Your task to perform on an android device: Search for hotels in Boston Image 0: 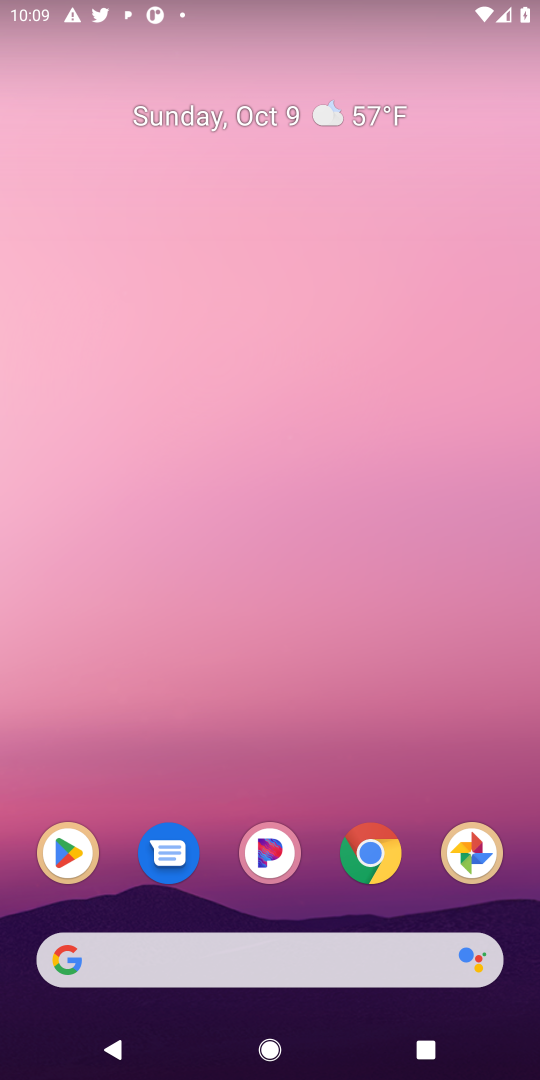
Step 0: click (352, 853)
Your task to perform on an android device: Search for hotels in Boston Image 1: 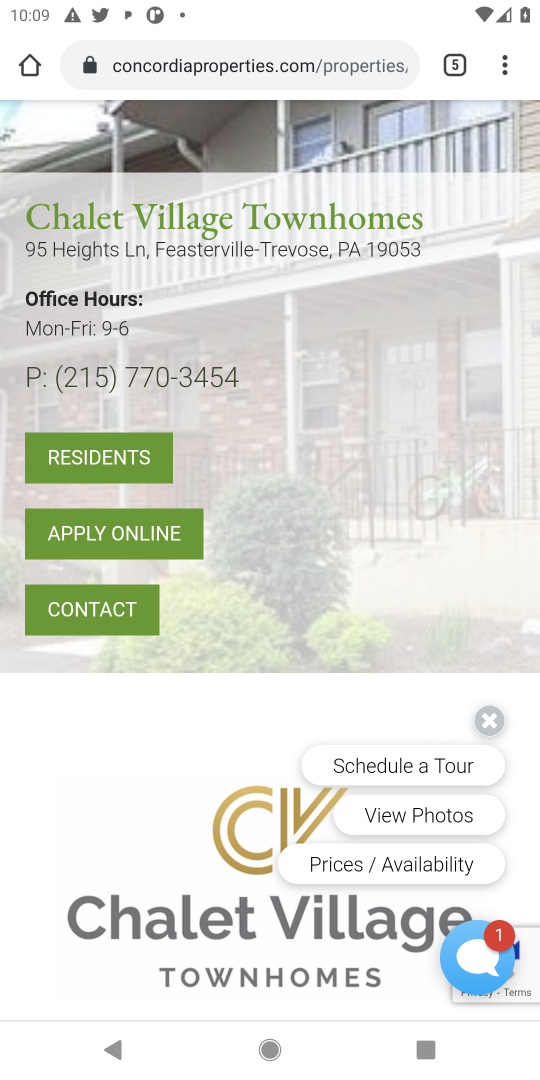
Step 1: click (320, 81)
Your task to perform on an android device: Search for hotels in Boston Image 2: 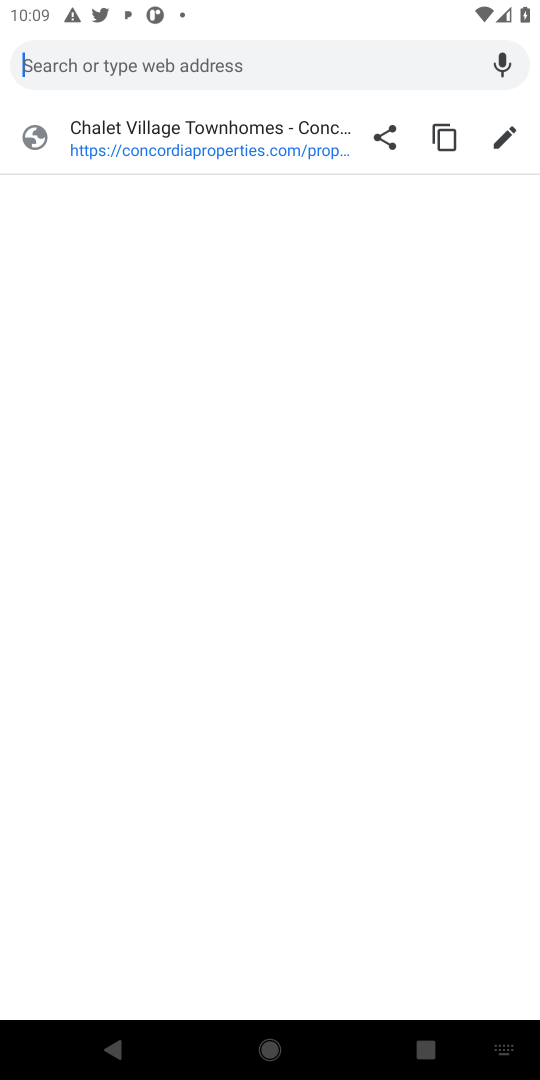
Step 2: type "hotels in boston"
Your task to perform on an android device: Search for hotels in Boston Image 3: 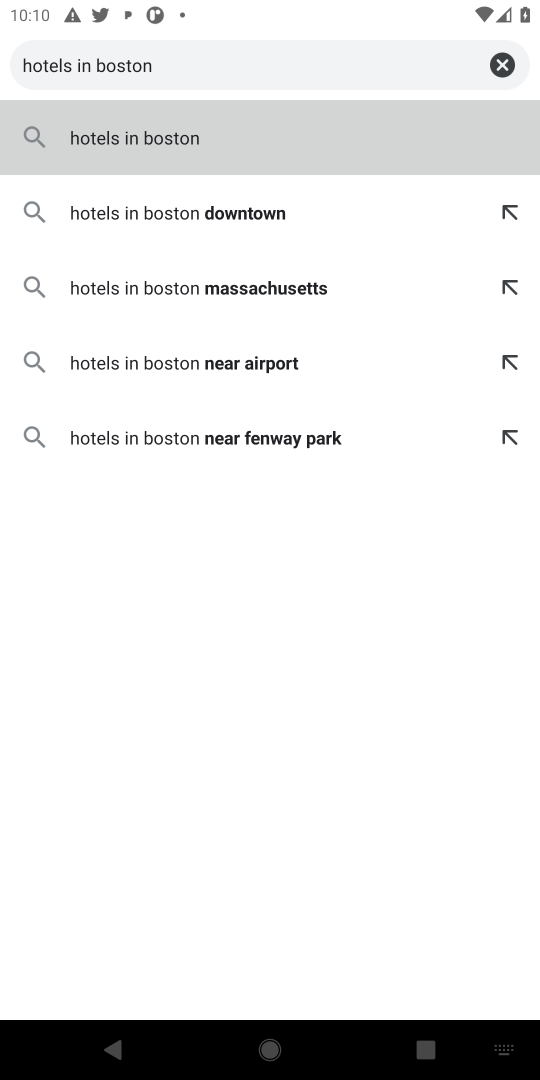
Step 3: click (414, 75)
Your task to perform on an android device: Search for hotels in Boston Image 4: 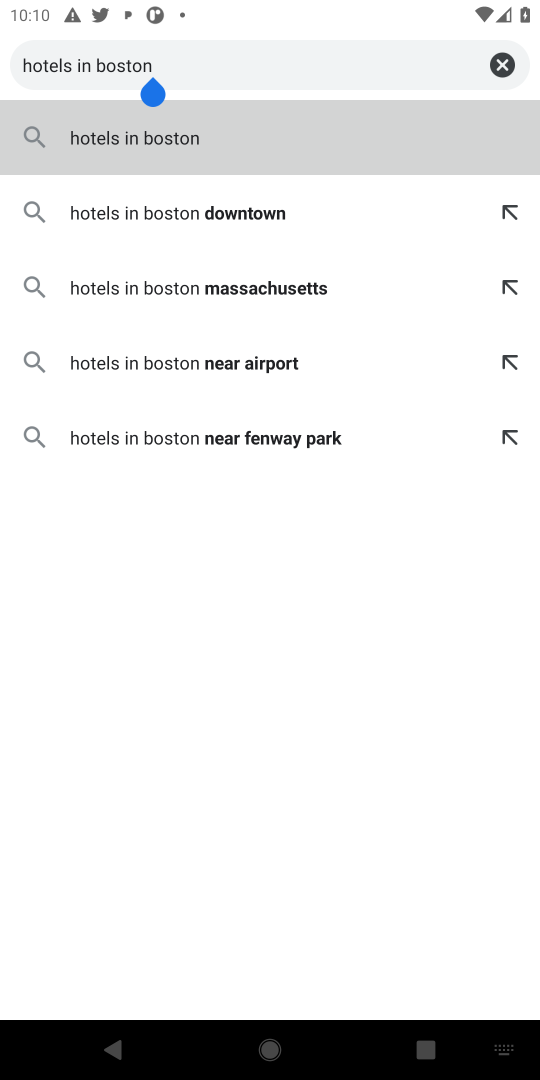
Step 4: press enter
Your task to perform on an android device: Search for hotels in Boston Image 5: 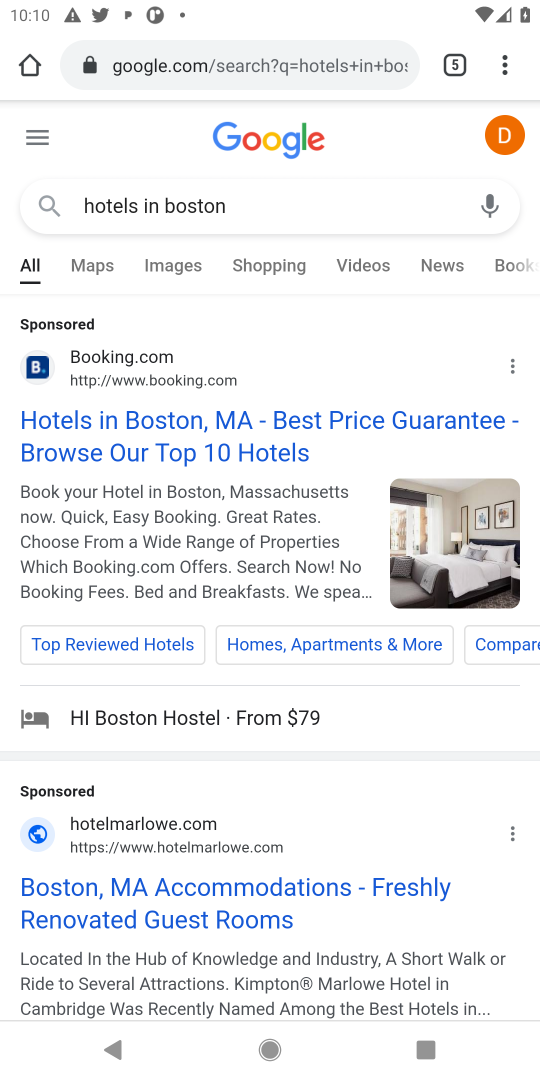
Step 5: click (173, 436)
Your task to perform on an android device: Search for hotels in Boston Image 6: 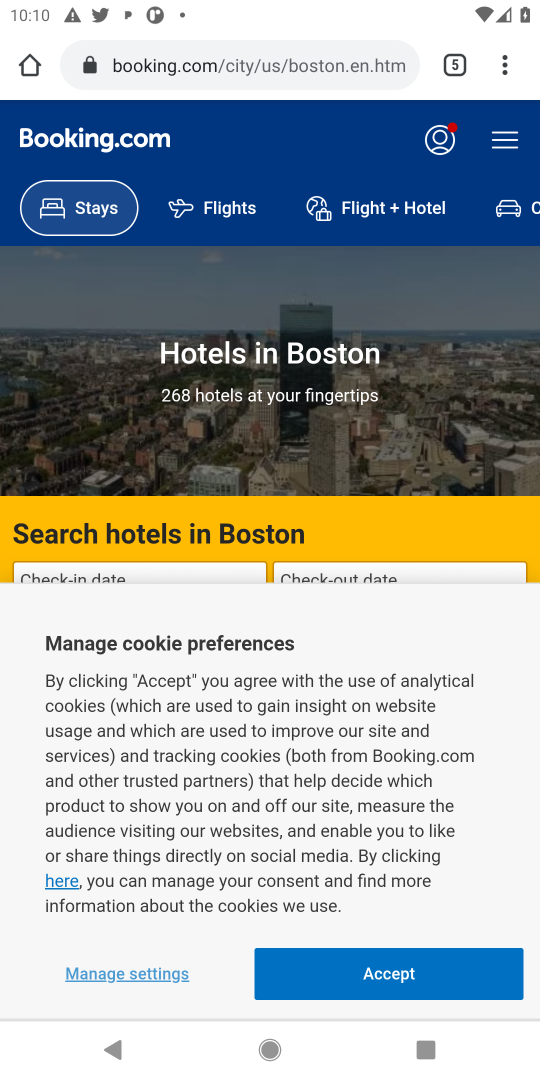
Step 6: drag from (190, 467) to (224, 304)
Your task to perform on an android device: Search for hotels in Boston Image 7: 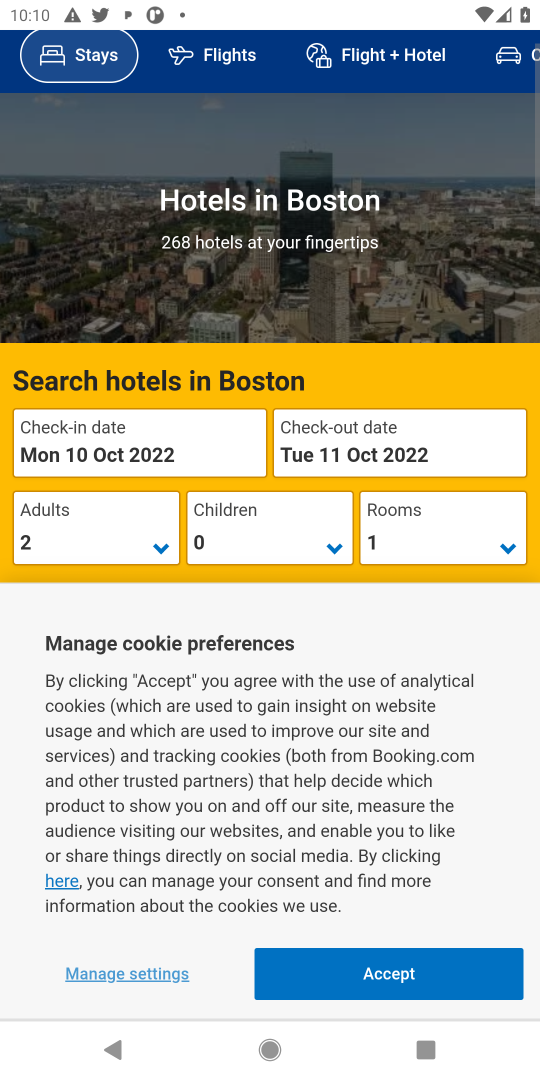
Step 7: click (311, 982)
Your task to perform on an android device: Search for hotels in Boston Image 8: 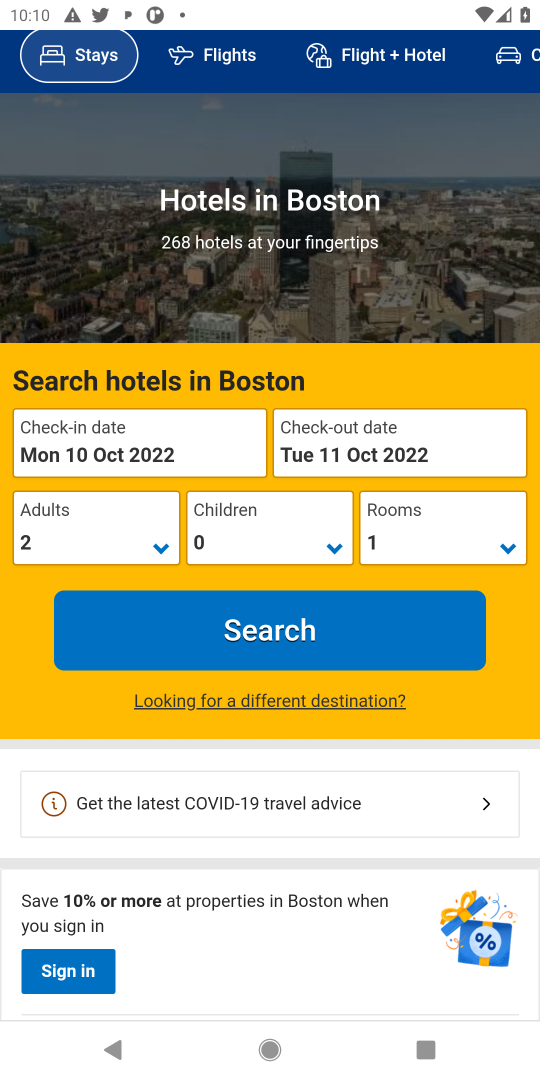
Step 8: drag from (319, 971) to (394, 508)
Your task to perform on an android device: Search for hotels in Boston Image 9: 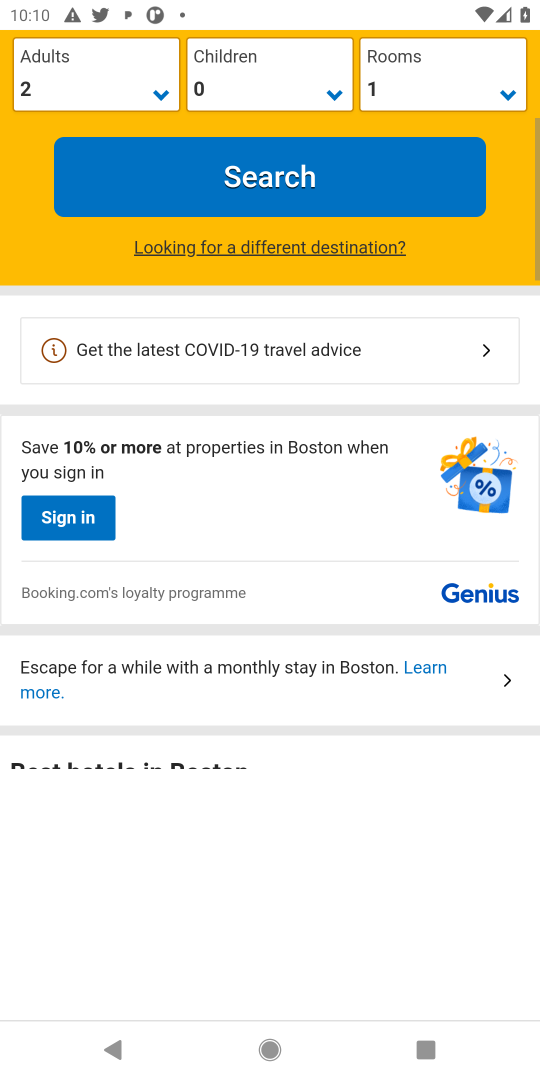
Step 9: drag from (341, 749) to (317, 309)
Your task to perform on an android device: Search for hotels in Boston Image 10: 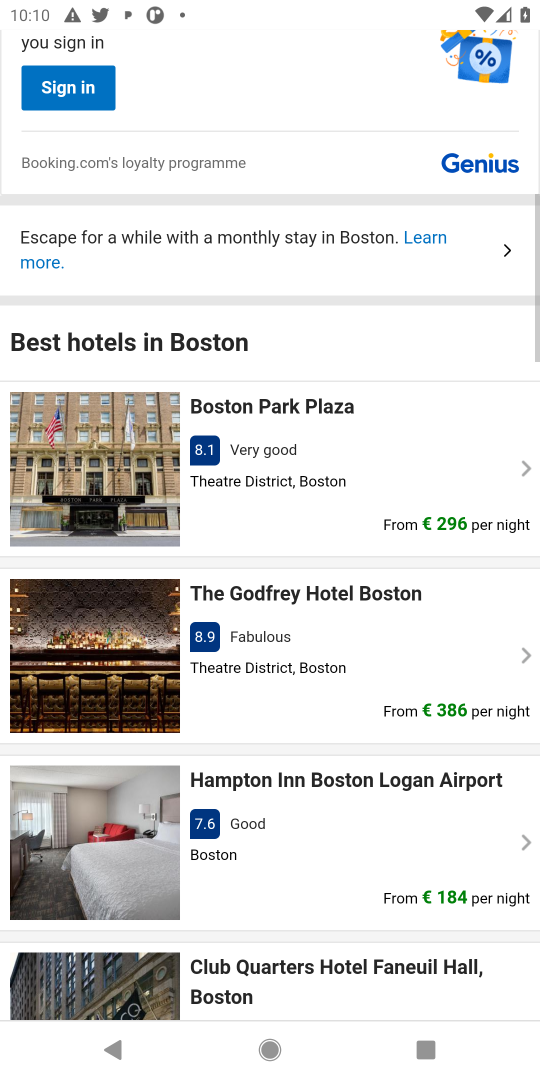
Step 10: drag from (409, 617) to (406, 320)
Your task to perform on an android device: Search for hotels in Boston Image 11: 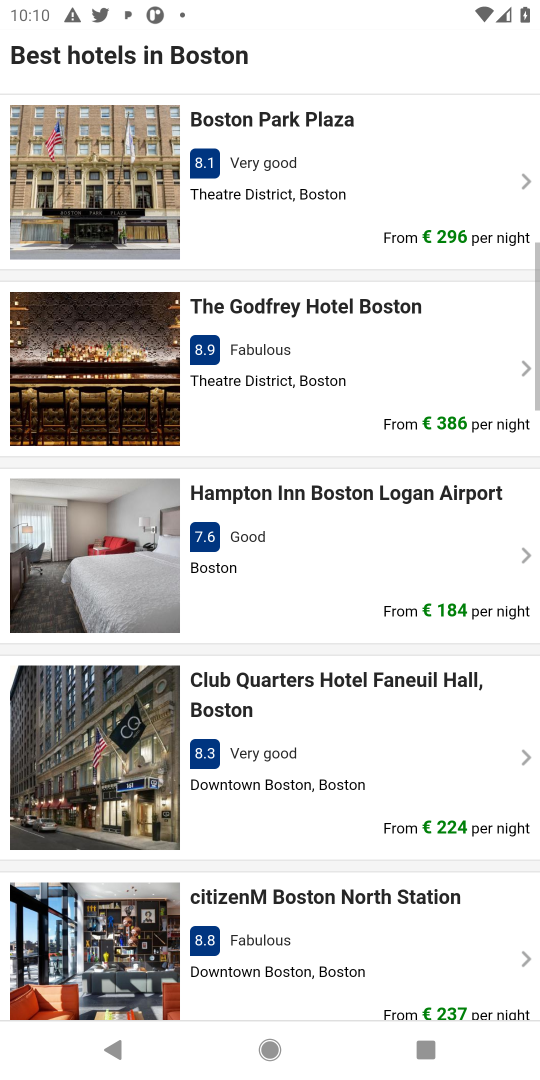
Step 11: drag from (381, 670) to (395, 378)
Your task to perform on an android device: Search for hotels in Boston Image 12: 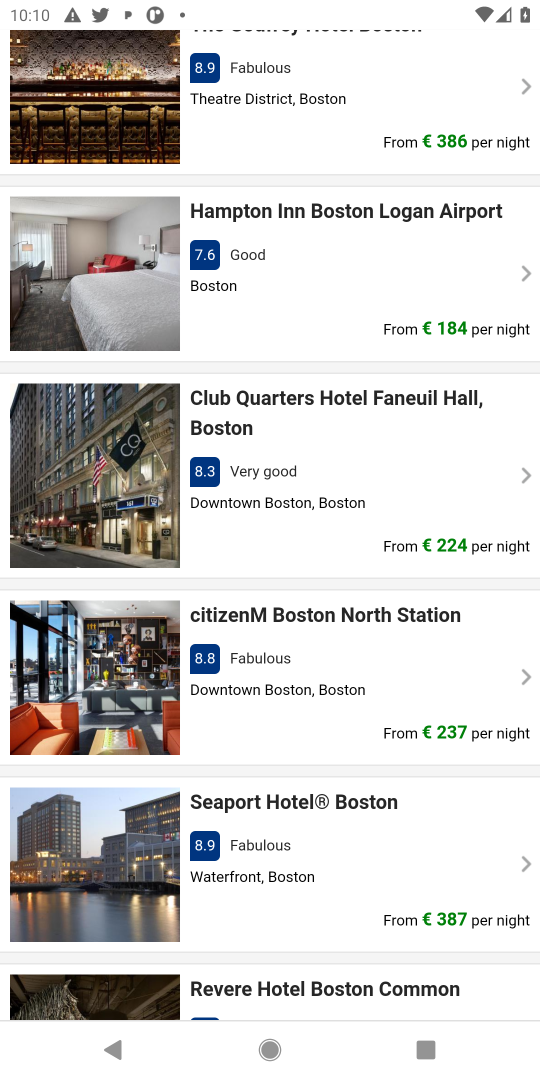
Step 12: drag from (366, 750) to (454, 254)
Your task to perform on an android device: Search for hotels in Boston Image 13: 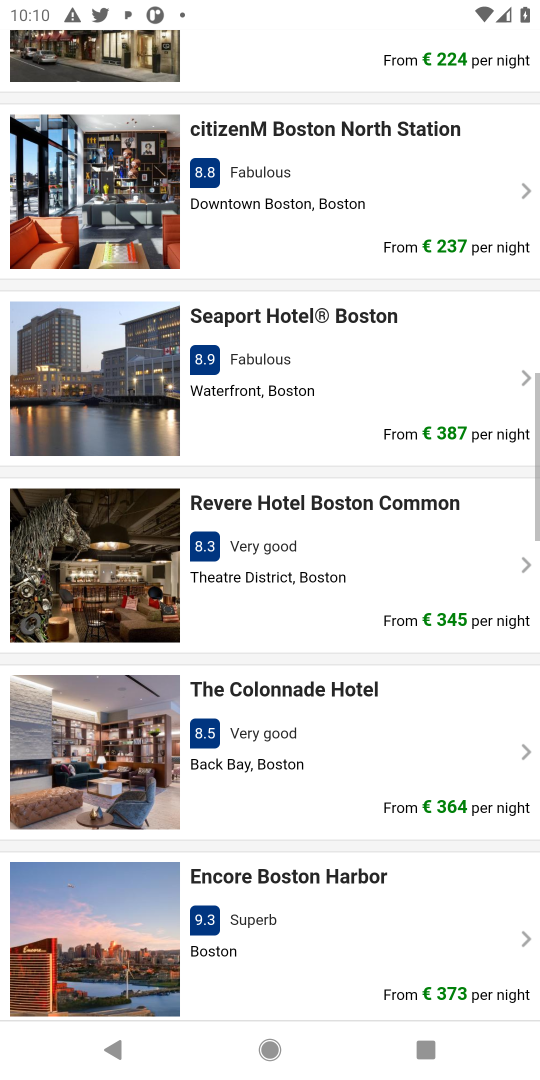
Step 13: drag from (438, 806) to (426, 234)
Your task to perform on an android device: Search for hotels in Boston Image 14: 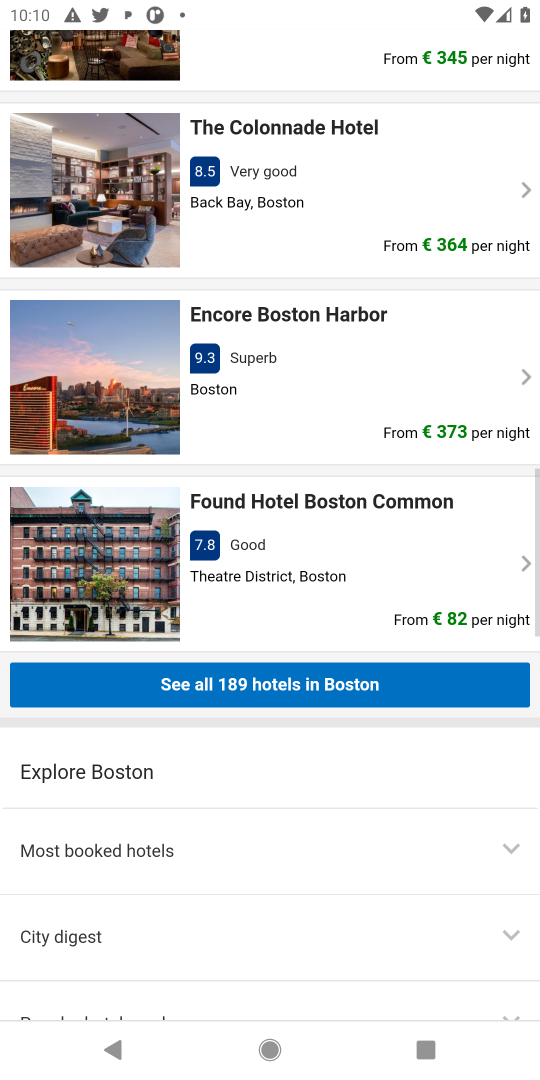
Step 14: drag from (471, 516) to (463, 365)
Your task to perform on an android device: Search for hotels in Boston Image 15: 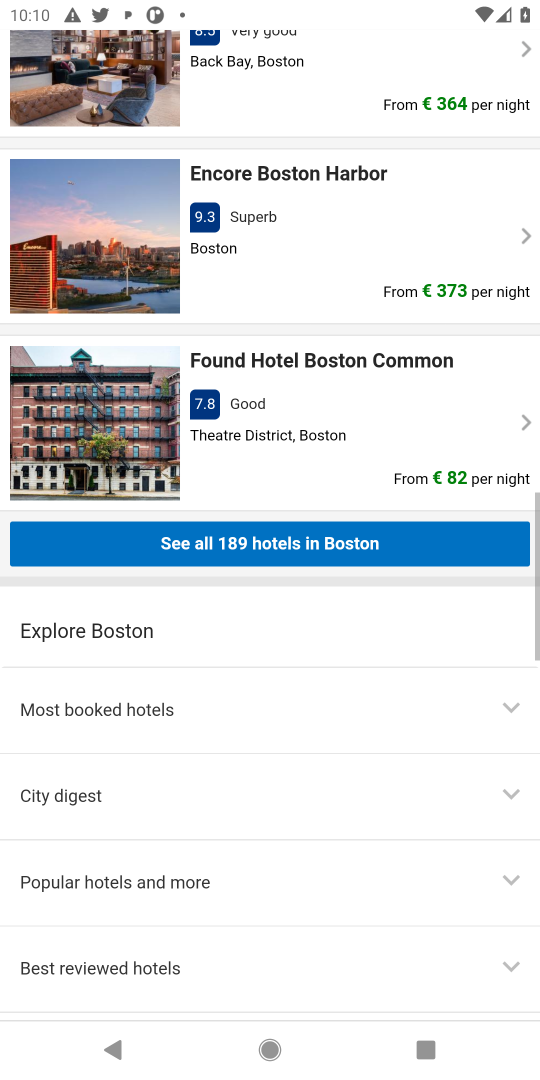
Step 15: drag from (424, 577) to (438, 326)
Your task to perform on an android device: Search for hotels in Boston Image 16: 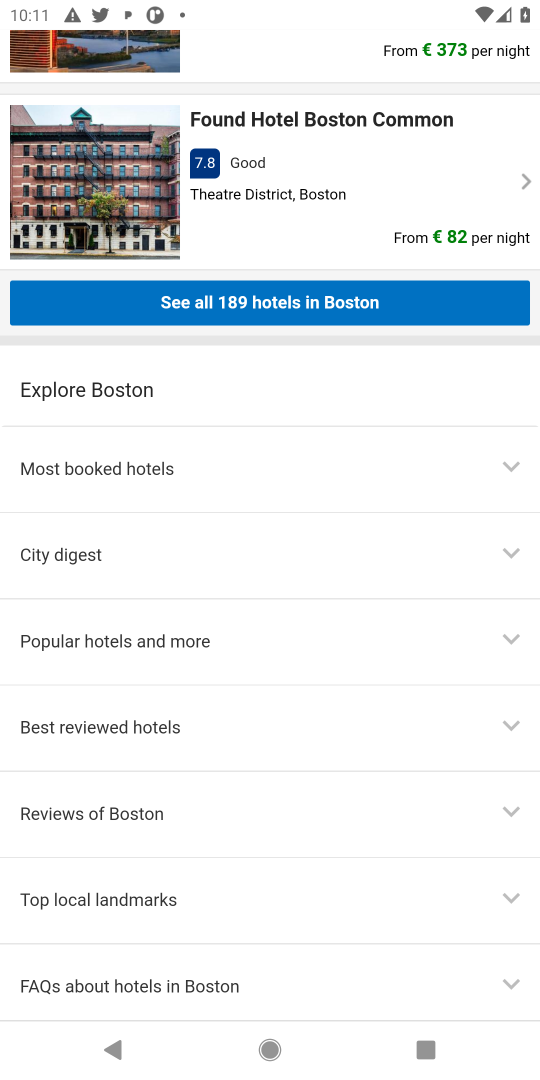
Step 16: press back button
Your task to perform on an android device: Search for hotels in Boston Image 17: 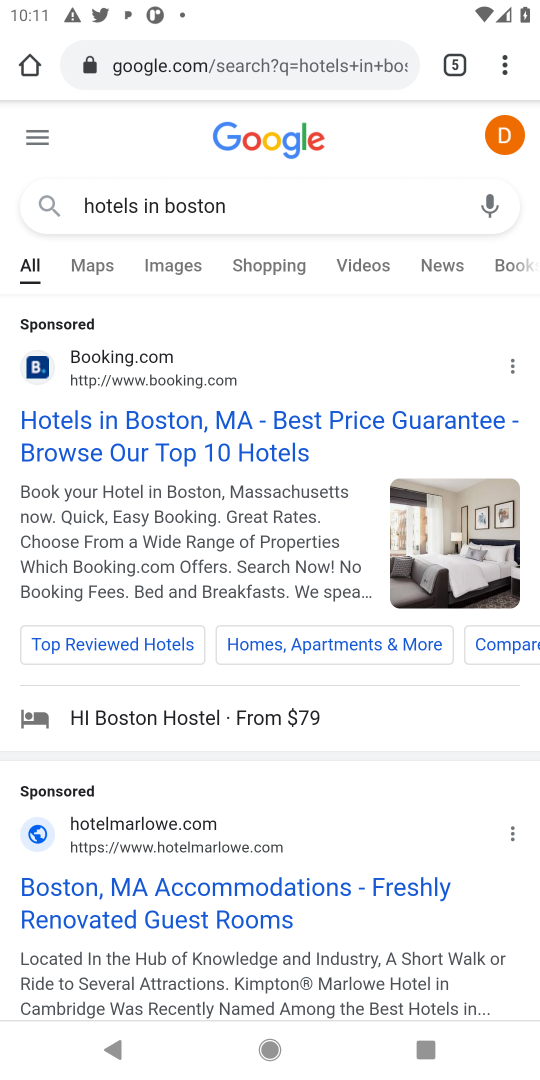
Step 17: click (238, 920)
Your task to perform on an android device: Search for hotels in Boston Image 18: 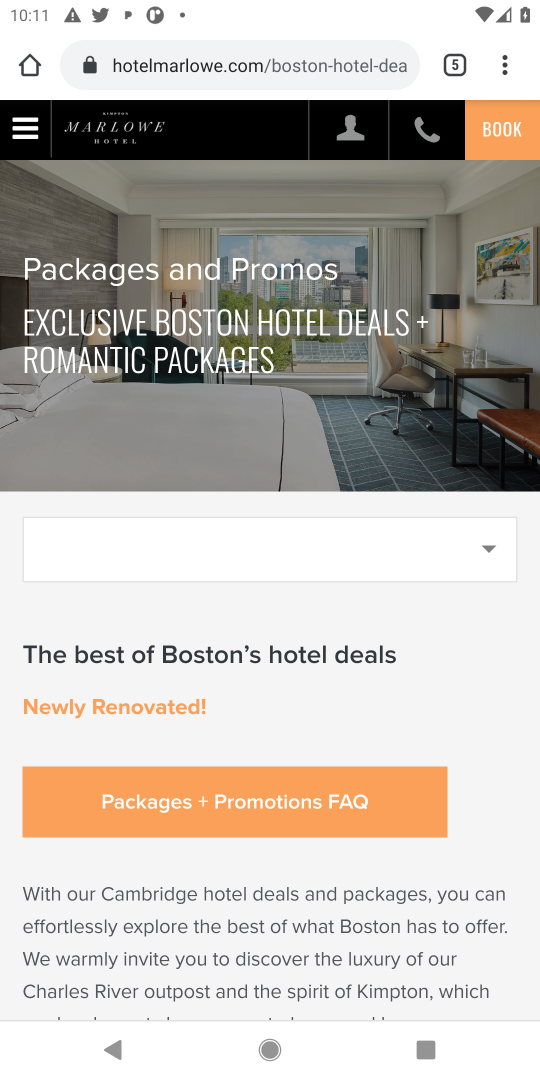
Step 18: drag from (278, 777) to (386, 315)
Your task to perform on an android device: Search for hotels in Boston Image 19: 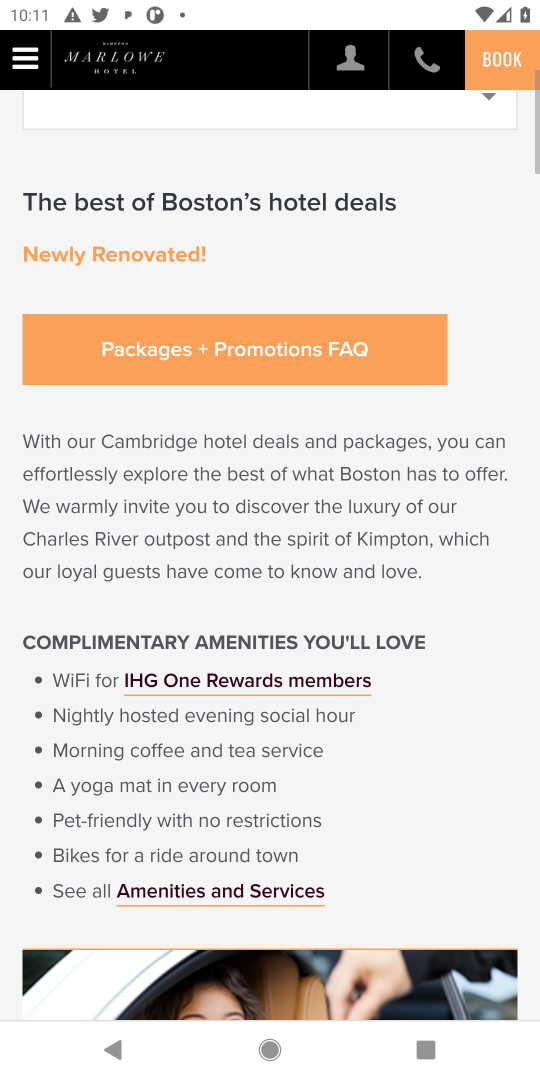
Step 19: drag from (383, 771) to (403, 285)
Your task to perform on an android device: Search for hotels in Boston Image 20: 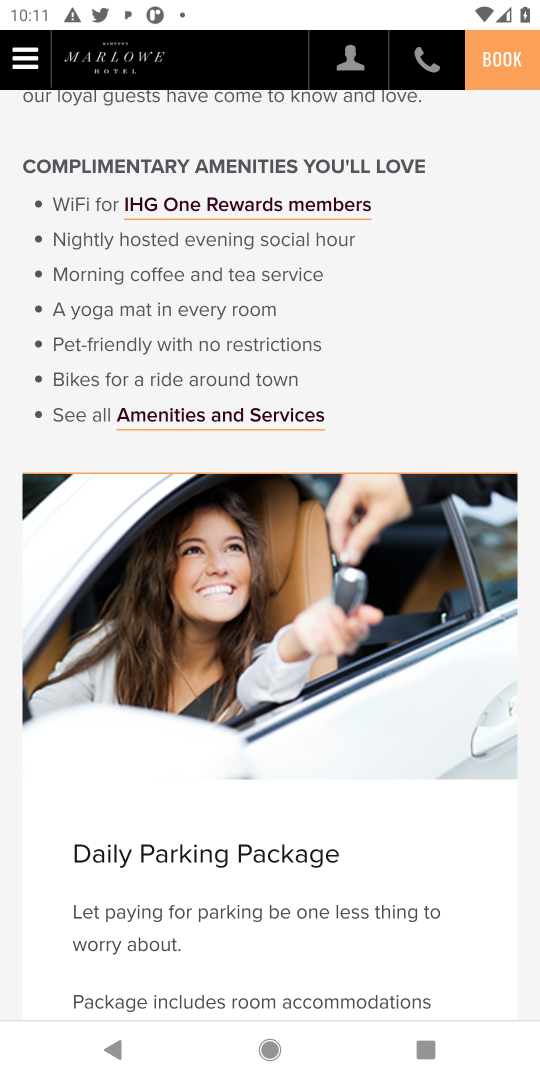
Step 20: drag from (411, 550) to (415, 265)
Your task to perform on an android device: Search for hotels in Boston Image 21: 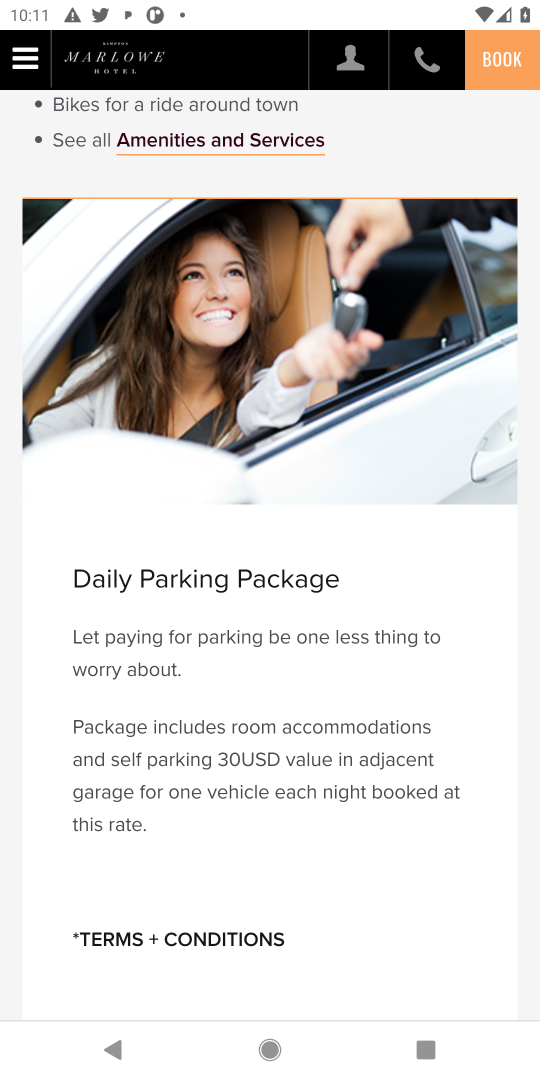
Step 21: drag from (369, 655) to (475, 201)
Your task to perform on an android device: Search for hotels in Boston Image 22: 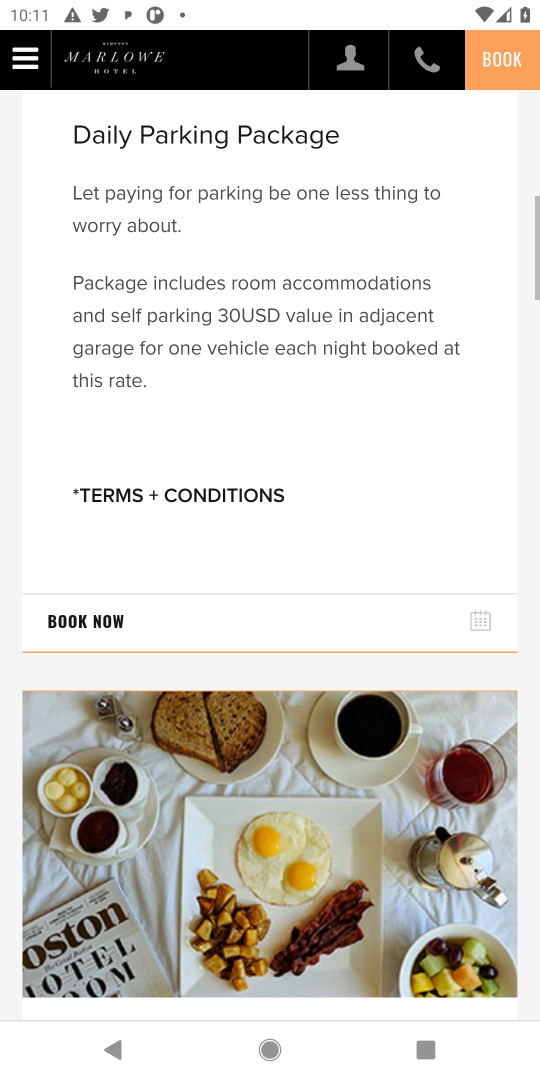
Step 22: drag from (351, 799) to (421, 314)
Your task to perform on an android device: Search for hotels in Boston Image 23: 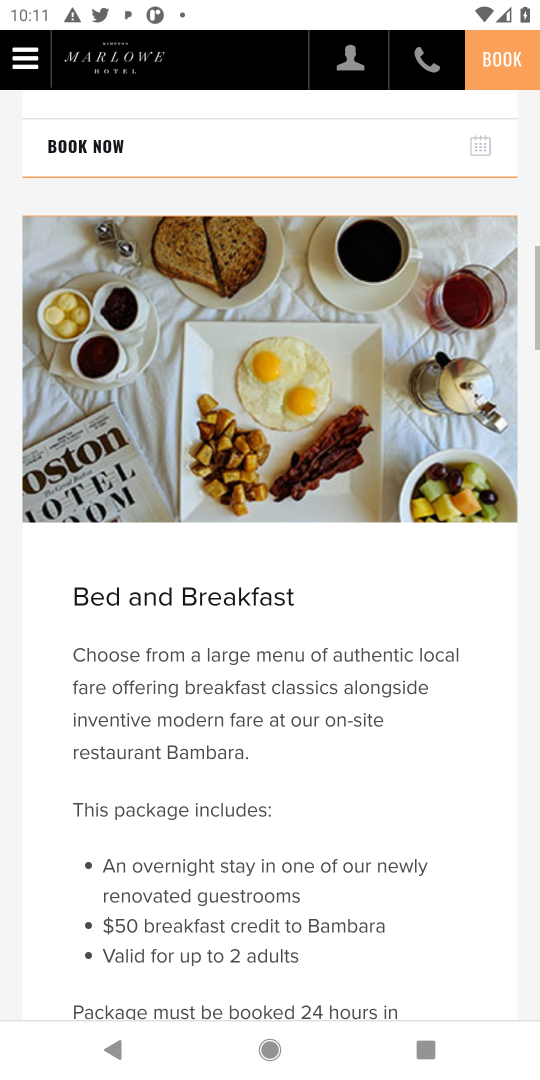
Step 23: drag from (396, 723) to (432, 426)
Your task to perform on an android device: Search for hotels in Boston Image 24: 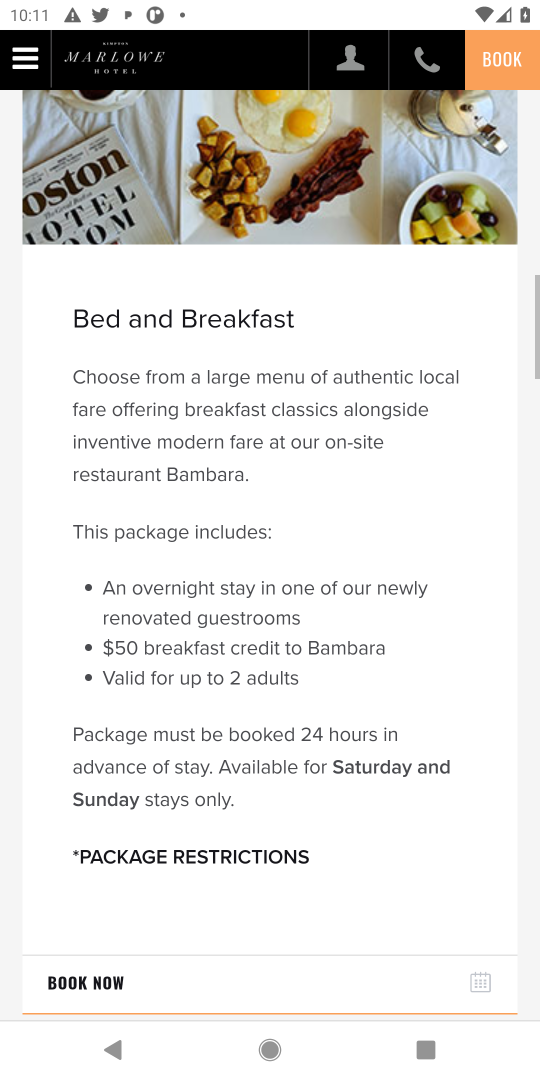
Step 24: drag from (425, 614) to (448, 502)
Your task to perform on an android device: Search for hotels in Boston Image 25: 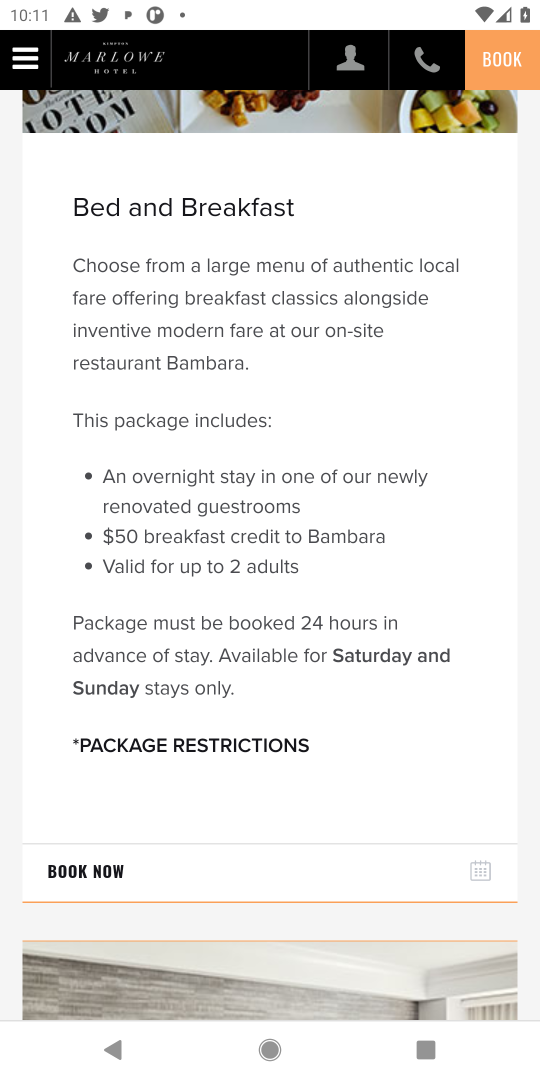
Step 25: drag from (497, 875) to (490, 652)
Your task to perform on an android device: Search for hotels in Boston Image 26: 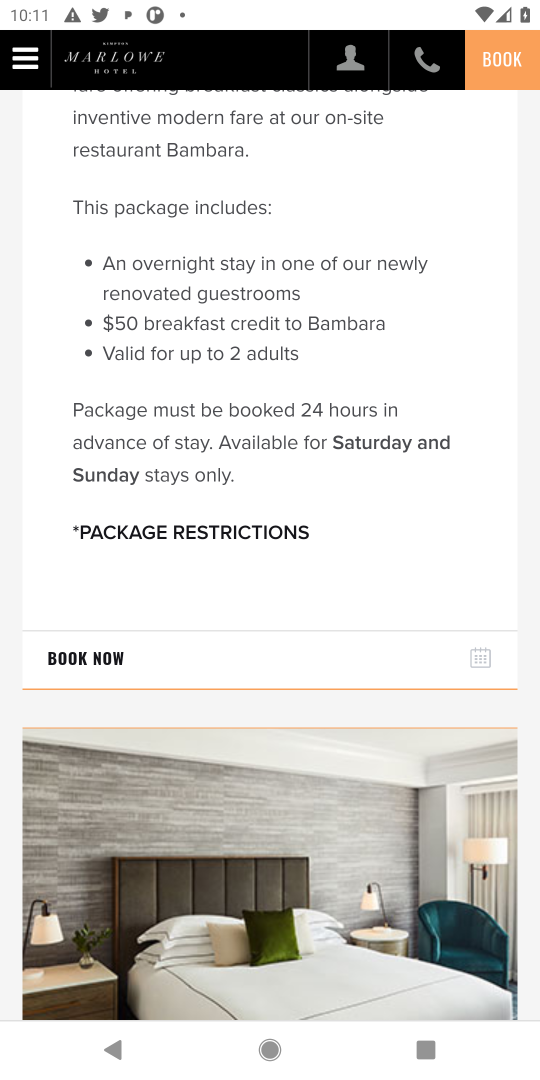
Step 26: drag from (291, 497) to (348, 161)
Your task to perform on an android device: Search for hotels in Boston Image 27: 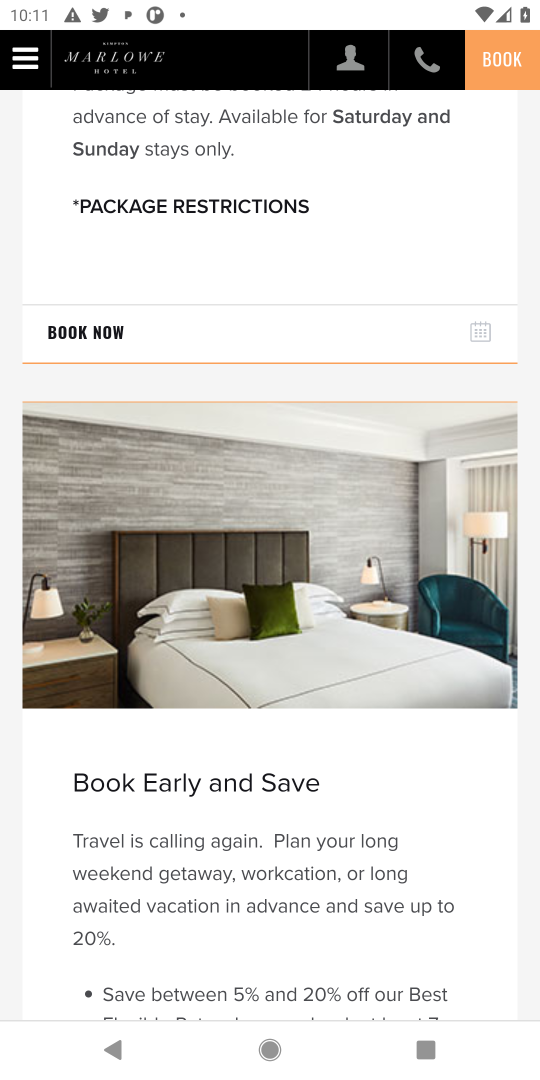
Step 27: drag from (171, 654) to (188, 397)
Your task to perform on an android device: Search for hotels in Boston Image 28: 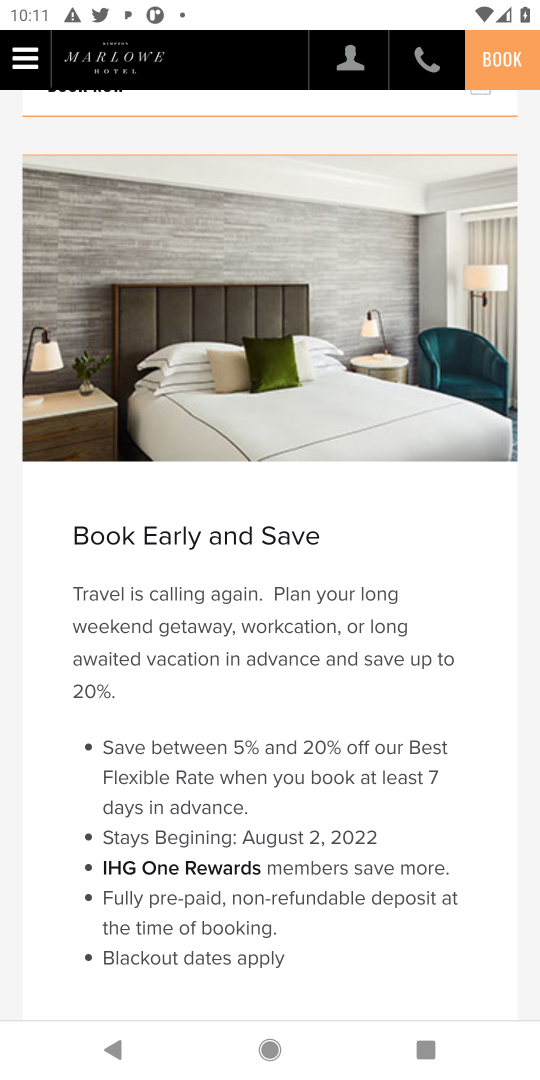
Step 28: drag from (225, 673) to (272, 479)
Your task to perform on an android device: Search for hotels in Boston Image 29: 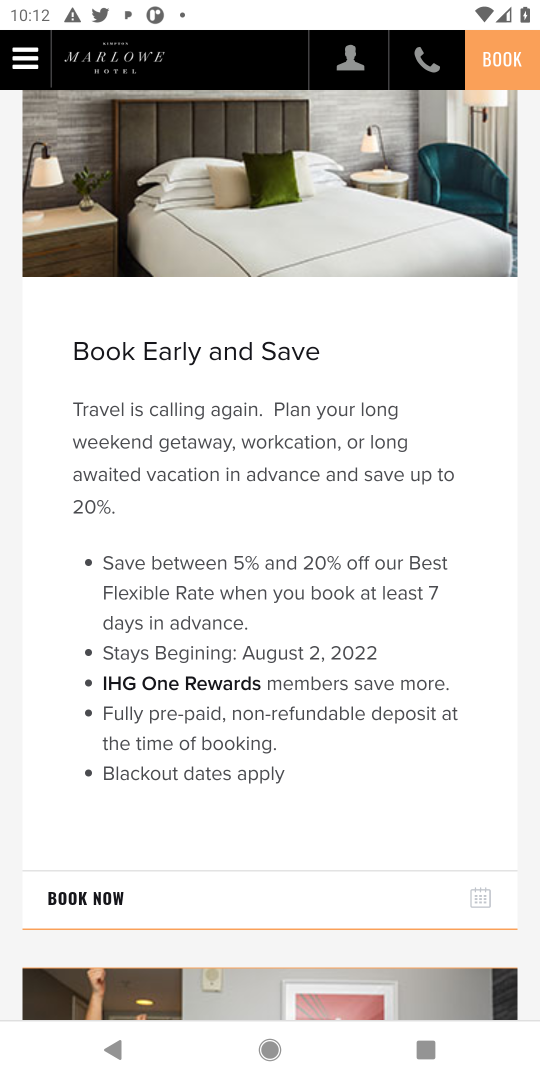
Step 29: drag from (213, 686) to (228, 389)
Your task to perform on an android device: Search for hotels in Boston Image 30: 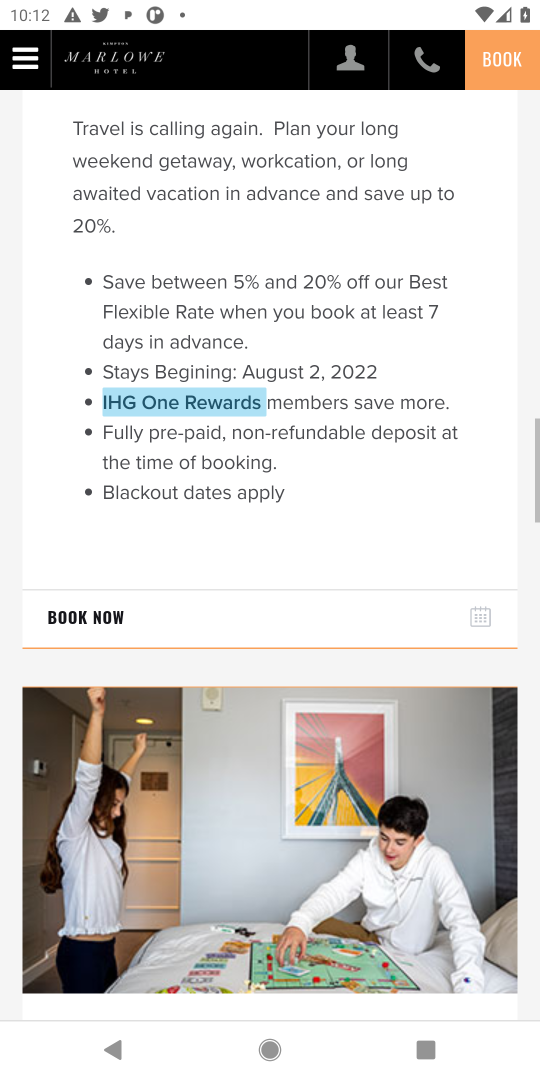
Step 30: drag from (270, 733) to (279, 283)
Your task to perform on an android device: Search for hotels in Boston Image 31: 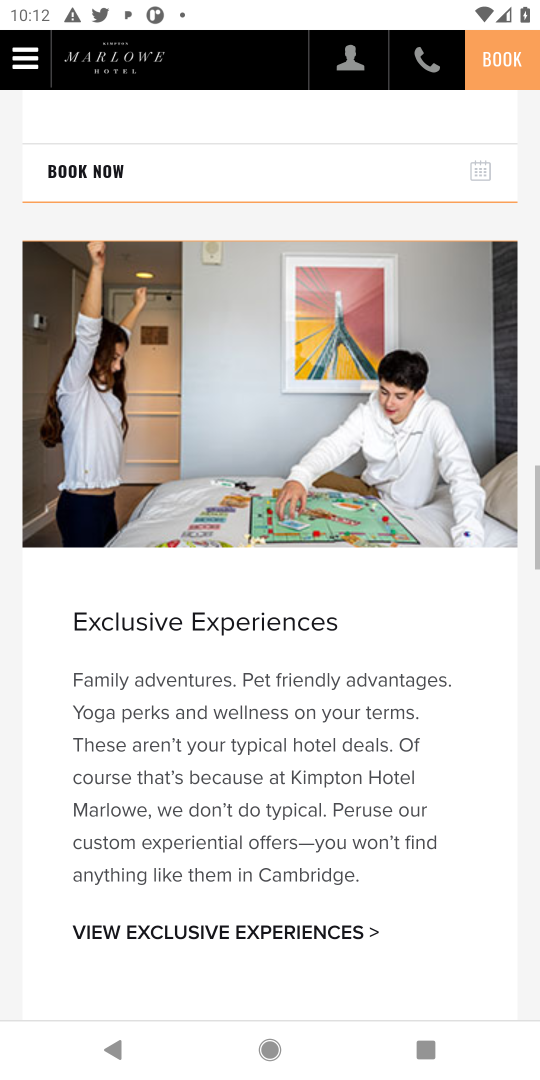
Step 31: drag from (259, 539) to (277, 233)
Your task to perform on an android device: Search for hotels in Boston Image 32: 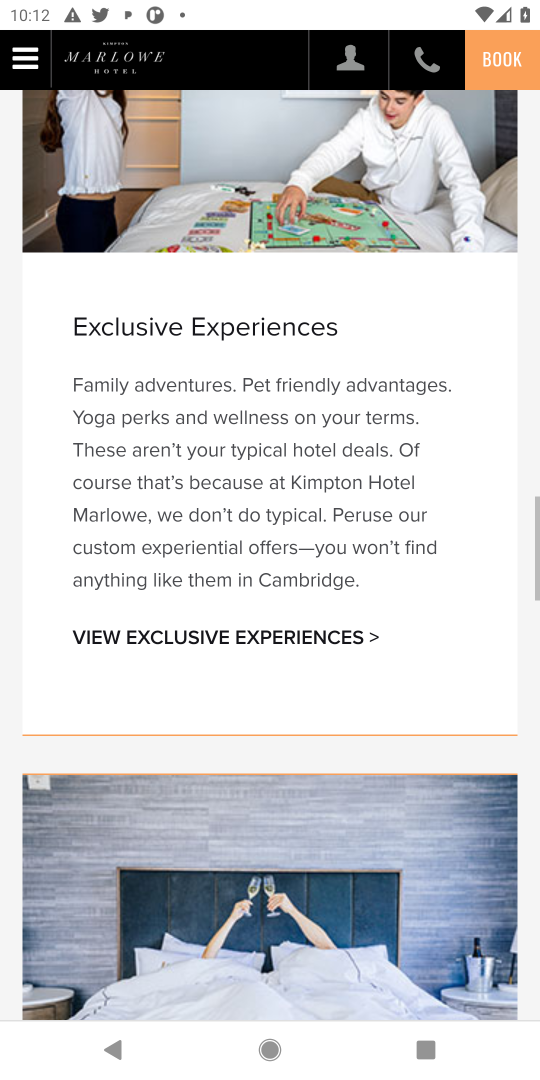
Step 32: drag from (334, 491) to (342, 231)
Your task to perform on an android device: Search for hotels in Boston Image 33: 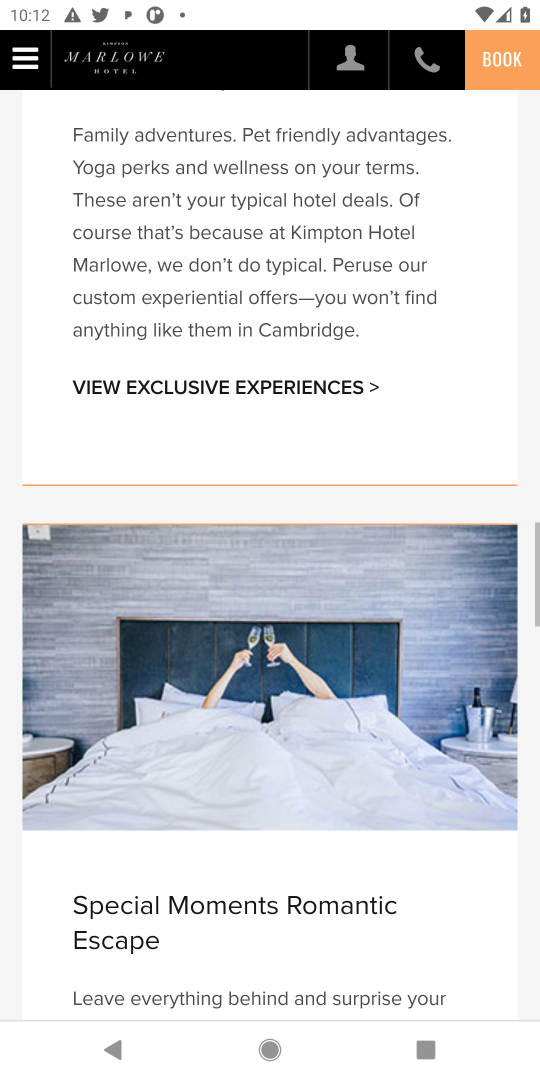
Step 33: drag from (307, 420) to (332, 212)
Your task to perform on an android device: Search for hotels in Boston Image 34: 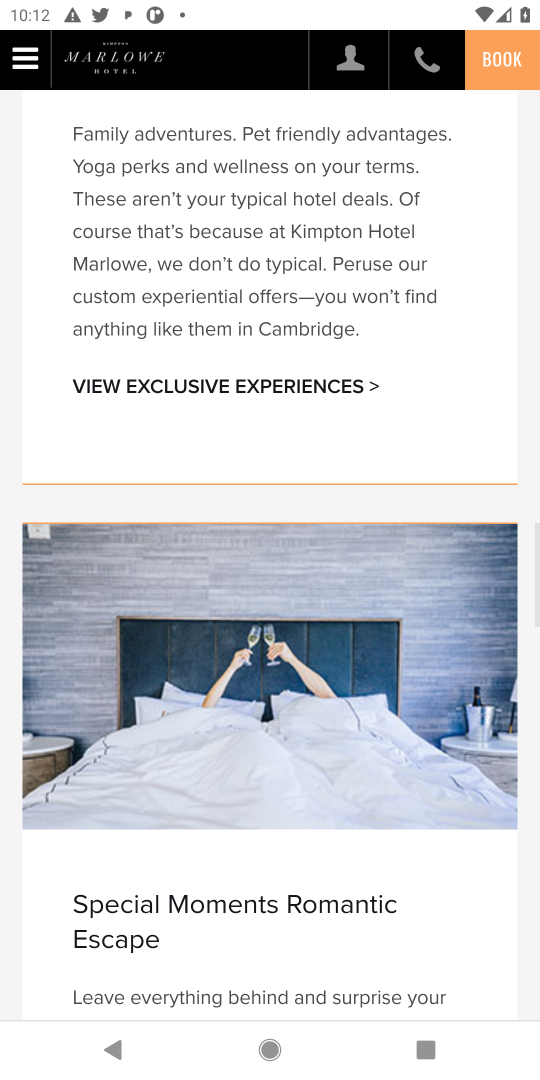
Step 34: drag from (365, 735) to (407, 356)
Your task to perform on an android device: Search for hotels in Boston Image 35: 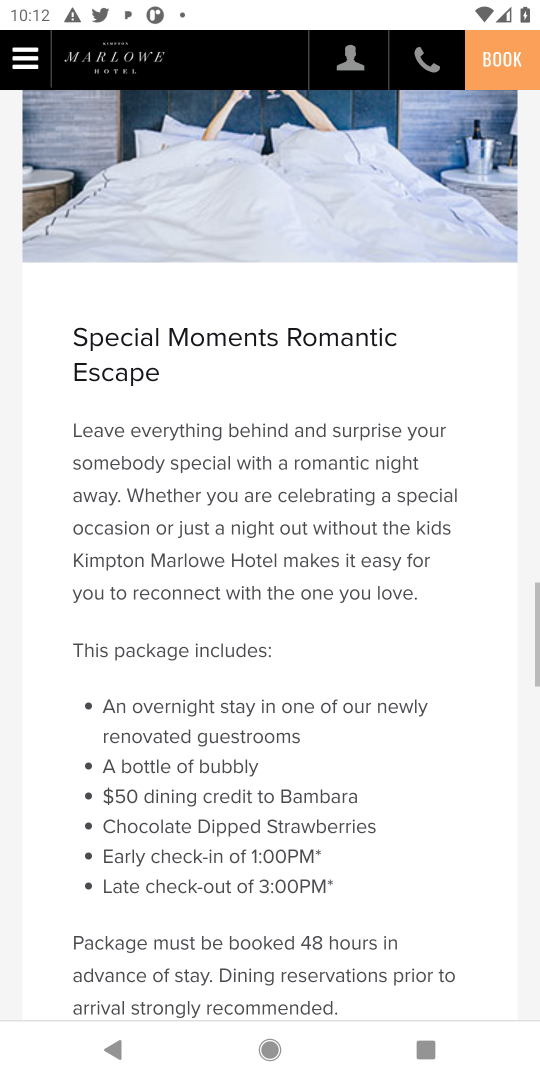
Step 35: click (338, 382)
Your task to perform on an android device: Search for hotels in Boston Image 36: 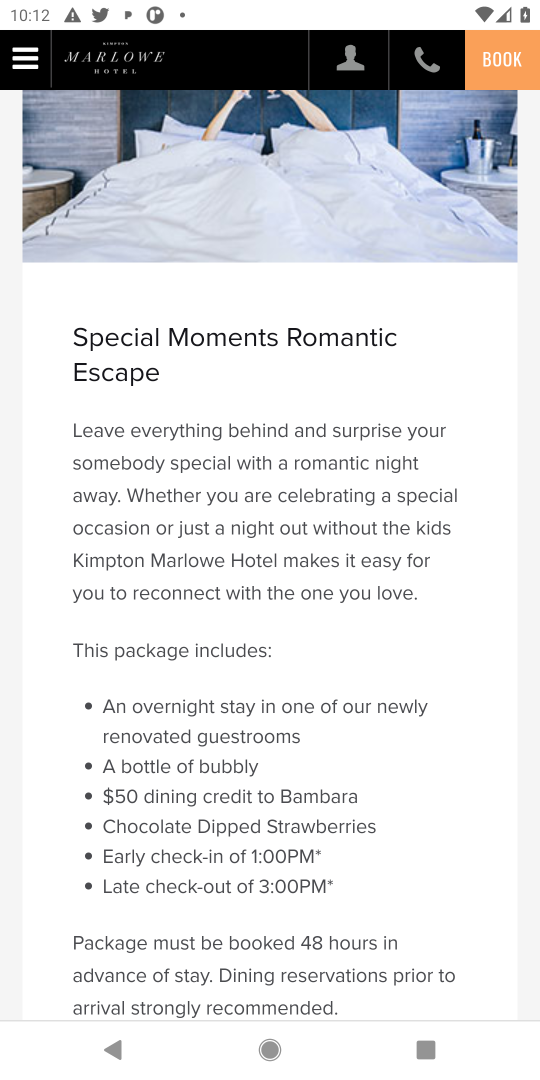
Step 36: task complete